Your task to perform on an android device: turn off picture-in-picture Image 0: 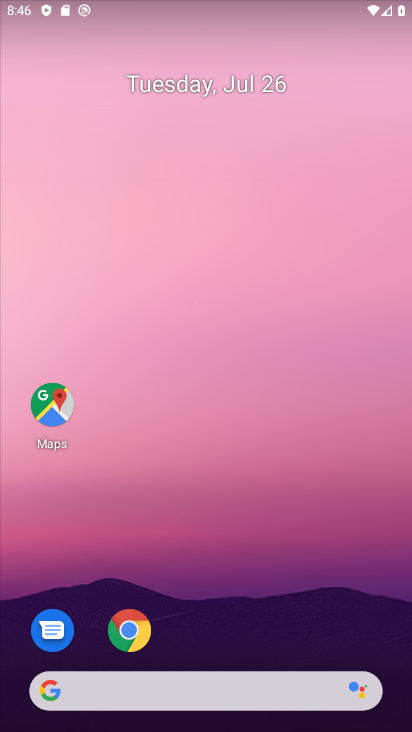
Step 0: drag from (210, 603) to (204, 99)
Your task to perform on an android device: turn off picture-in-picture Image 1: 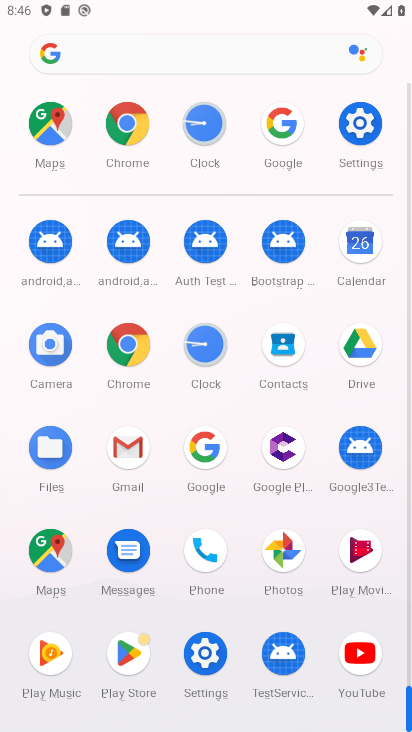
Step 1: click (124, 344)
Your task to perform on an android device: turn off picture-in-picture Image 2: 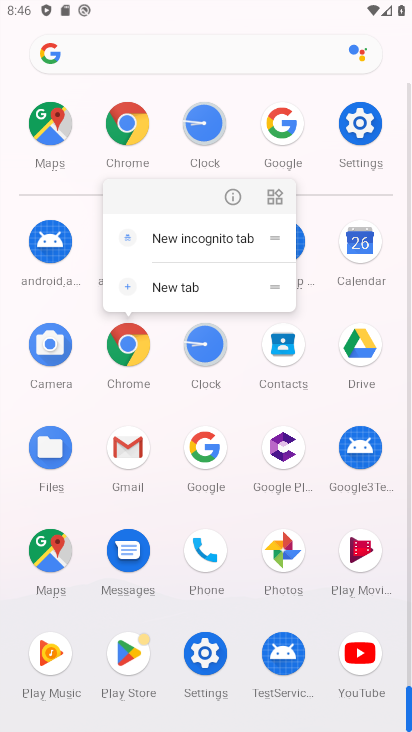
Step 2: click (230, 200)
Your task to perform on an android device: turn off picture-in-picture Image 3: 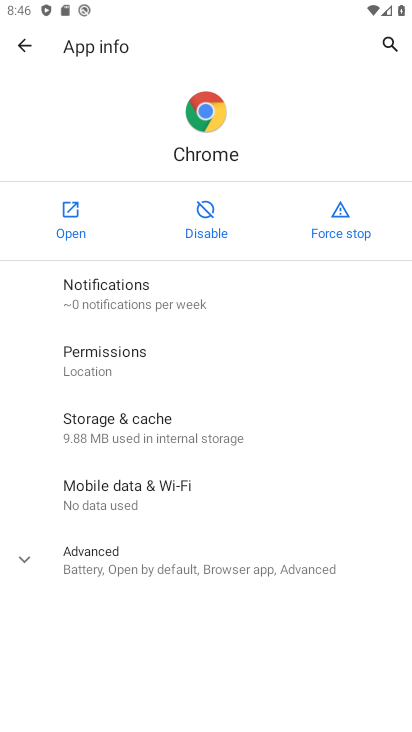
Step 3: drag from (128, 498) to (171, 224)
Your task to perform on an android device: turn off picture-in-picture Image 4: 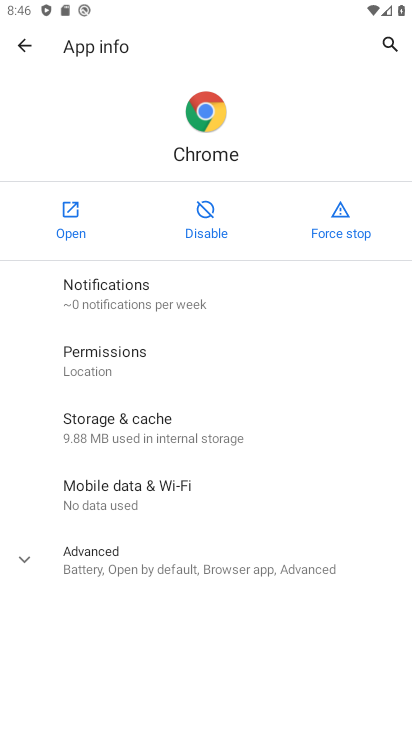
Step 4: click (100, 562)
Your task to perform on an android device: turn off picture-in-picture Image 5: 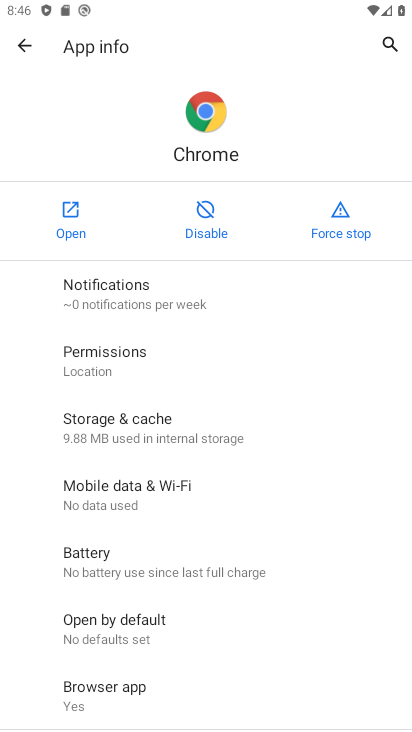
Step 5: drag from (102, 667) to (149, 281)
Your task to perform on an android device: turn off picture-in-picture Image 6: 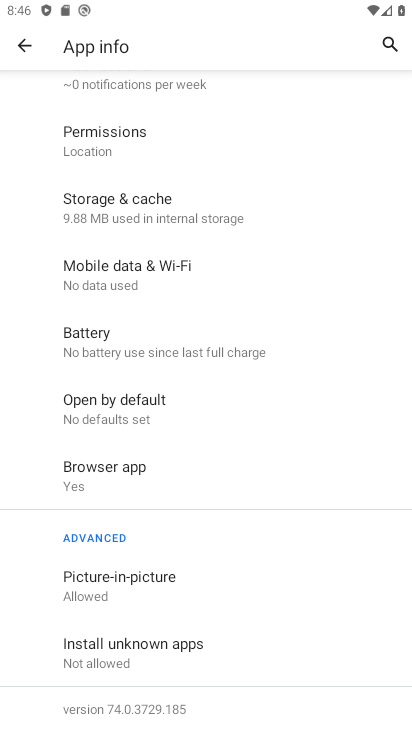
Step 6: click (68, 590)
Your task to perform on an android device: turn off picture-in-picture Image 7: 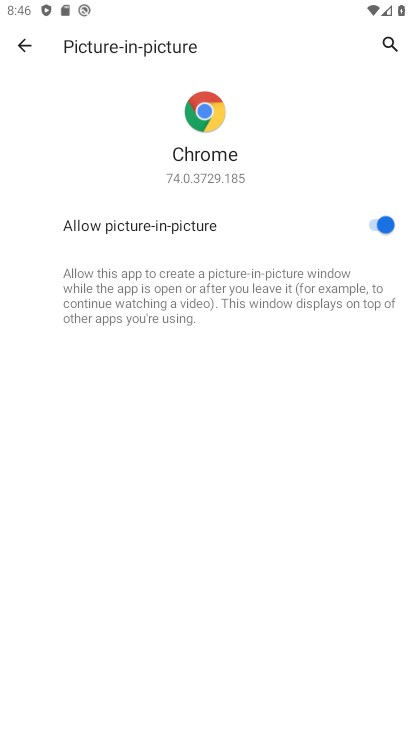
Step 7: click (370, 225)
Your task to perform on an android device: turn off picture-in-picture Image 8: 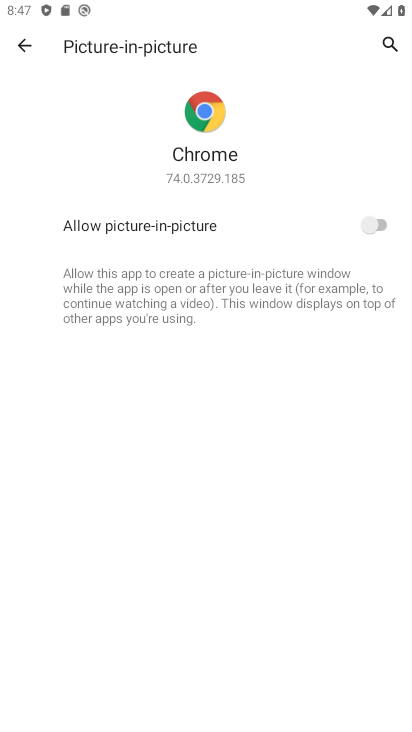
Step 8: task complete